Your task to perform on an android device: What's the weather today? Image 0: 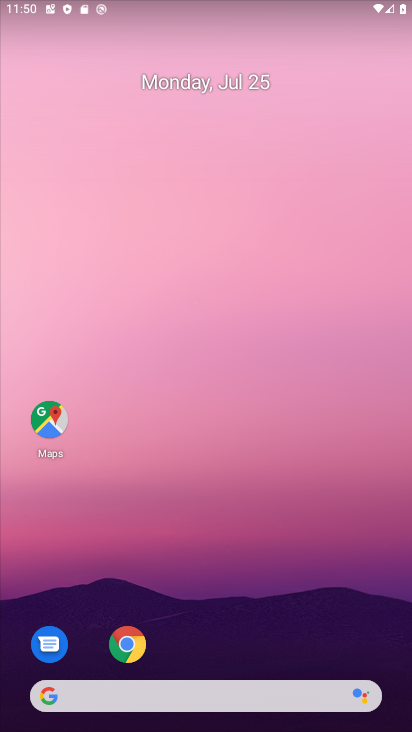
Step 0: drag from (276, 685) to (195, 81)
Your task to perform on an android device: What's the weather today? Image 1: 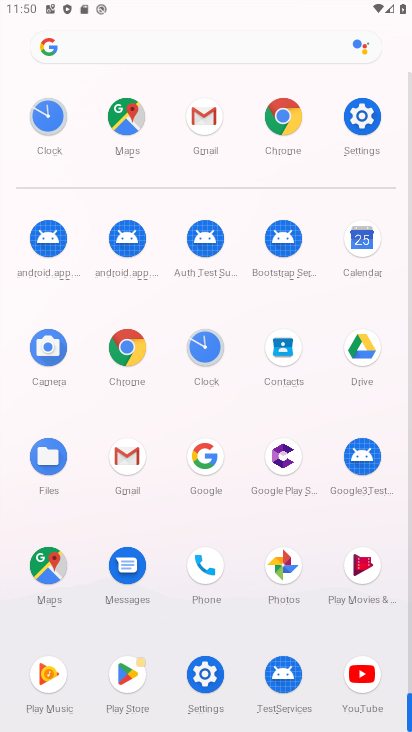
Step 1: click (200, 454)
Your task to perform on an android device: What's the weather today? Image 2: 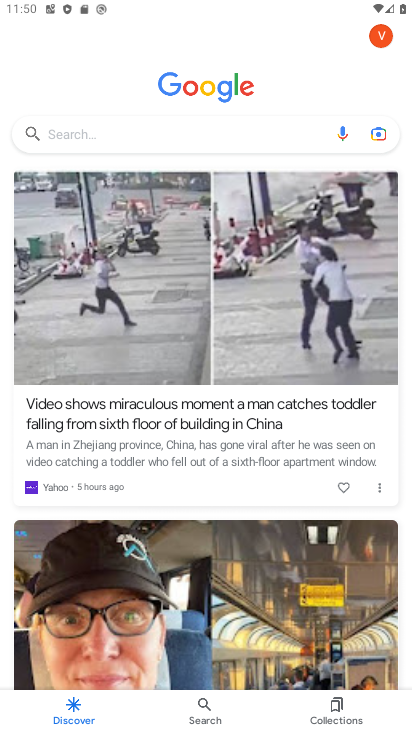
Step 2: click (214, 142)
Your task to perform on an android device: What's the weather today? Image 3: 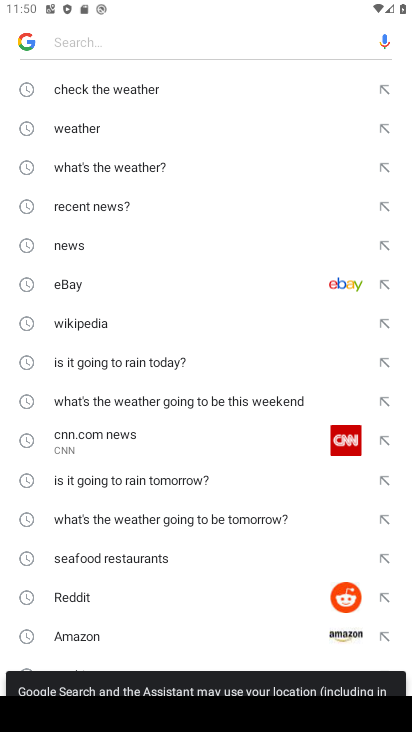
Step 3: click (103, 125)
Your task to perform on an android device: What's the weather today? Image 4: 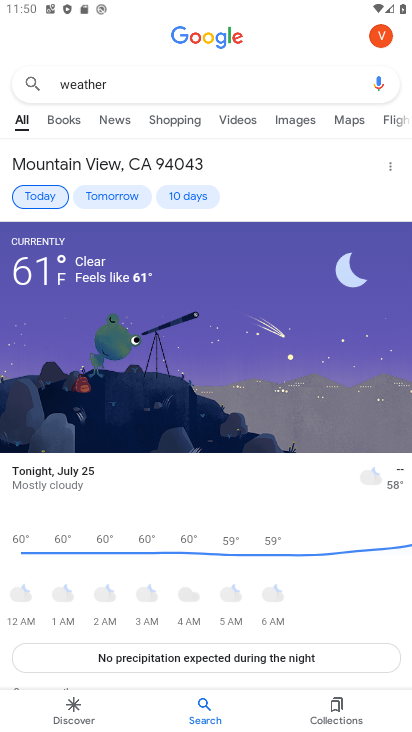
Step 4: task complete